Your task to perform on an android device: What's the price of the 1000-Watt EGO Power+ Snow Blower? Image 0: 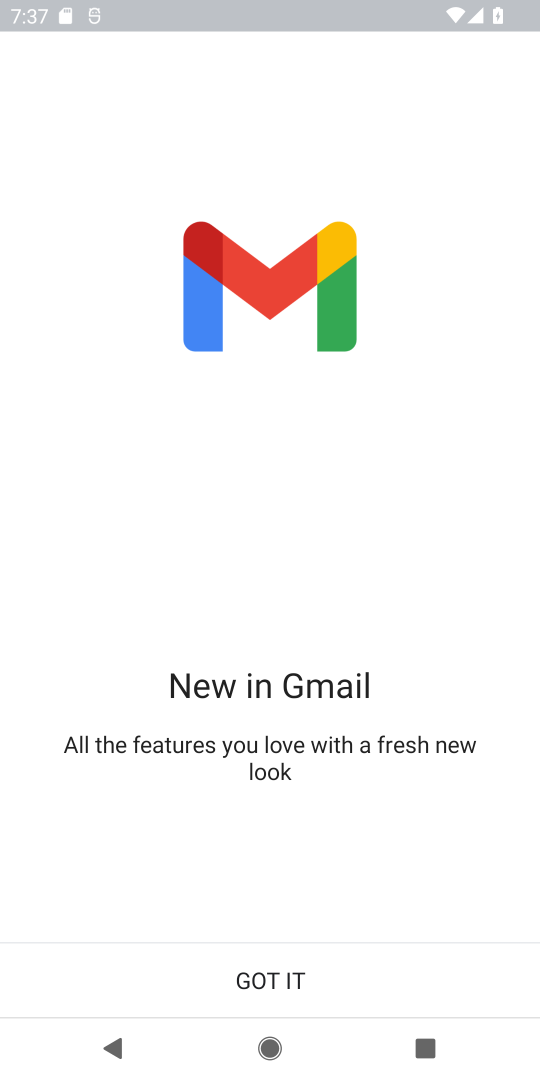
Step 0: press home button
Your task to perform on an android device: What's the price of the 1000-Watt EGO Power+ Snow Blower? Image 1: 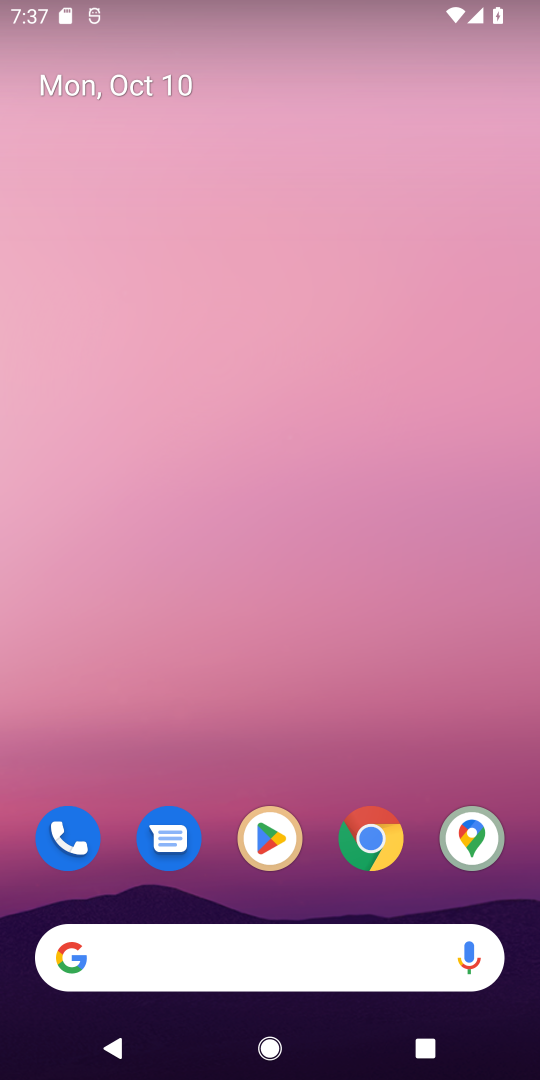
Step 1: click (367, 842)
Your task to perform on an android device: What's the price of the 1000-Watt EGO Power+ Snow Blower? Image 2: 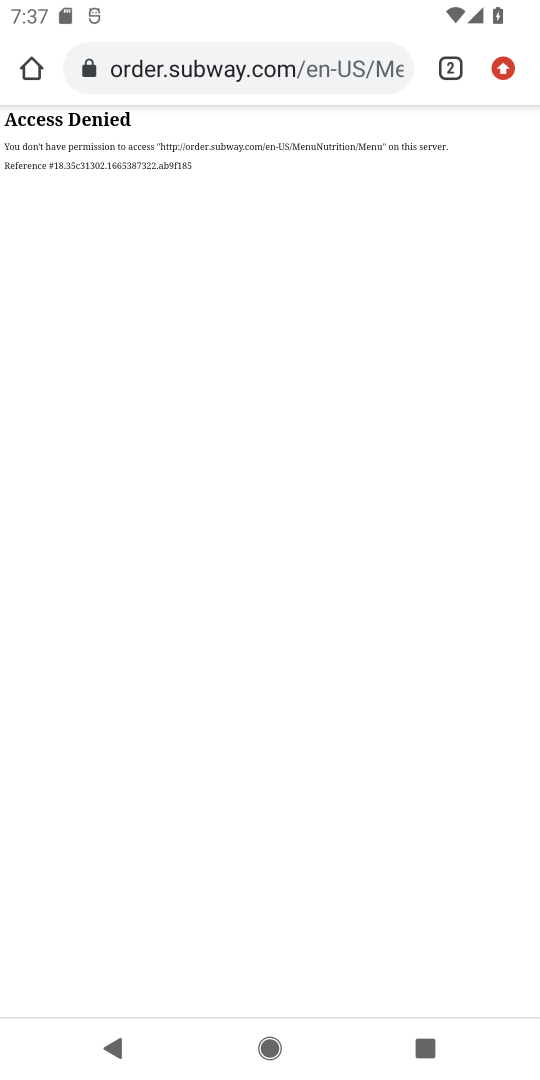
Step 2: click (304, 49)
Your task to perform on an android device: What's the price of the 1000-Watt EGO Power+ Snow Blower? Image 3: 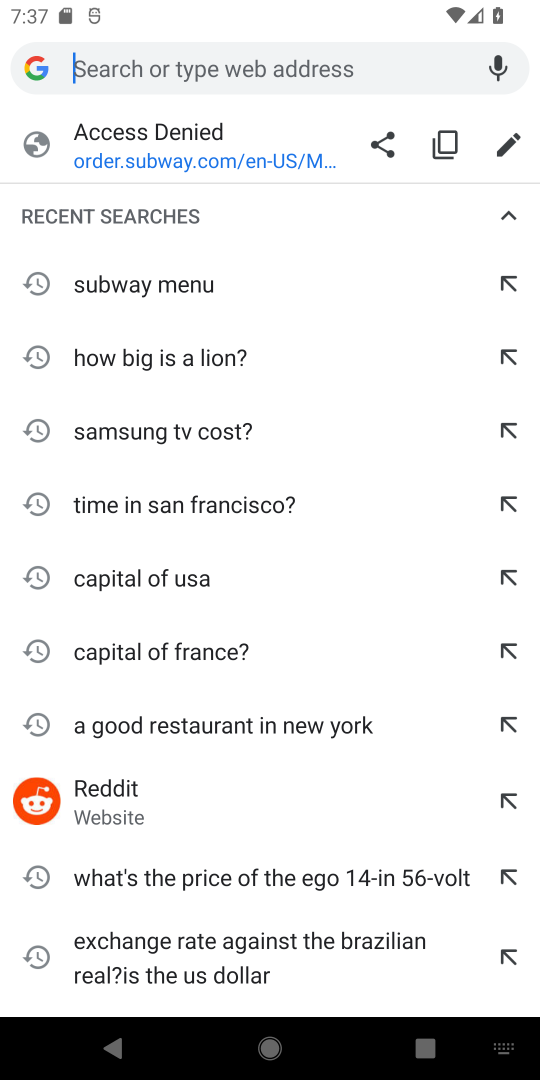
Step 3: type "What's the price of the 1000-Watt EGO Power+ Snow Blower?"
Your task to perform on an android device: What's the price of the 1000-Watt EGO Power+ Snow Blower? Image 4: 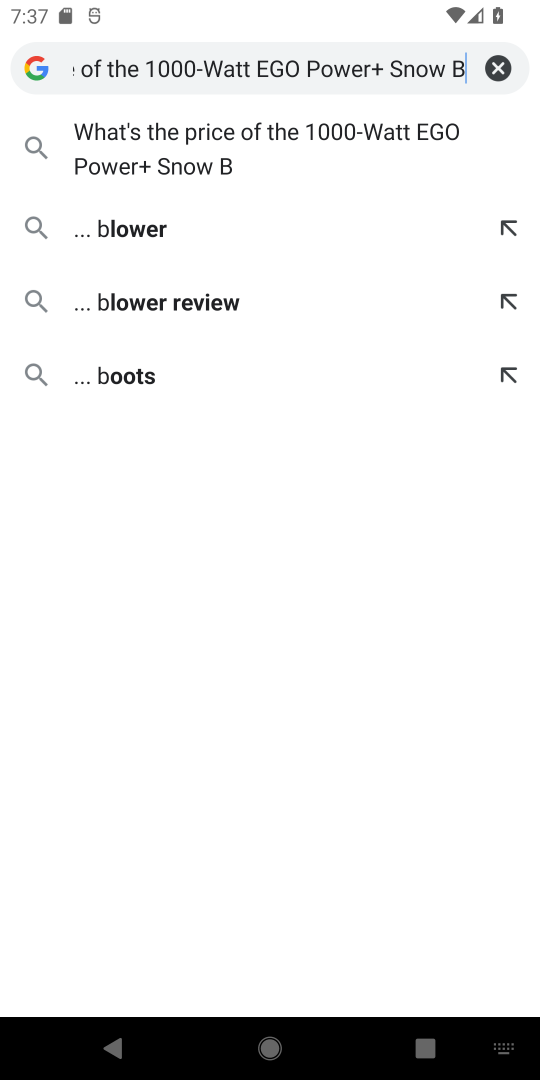
Step 4: click (162, 138)
Your task to perform on an android device: What's the price of the 1000-Watt EGO Power+ Snow Blower? Image 5: 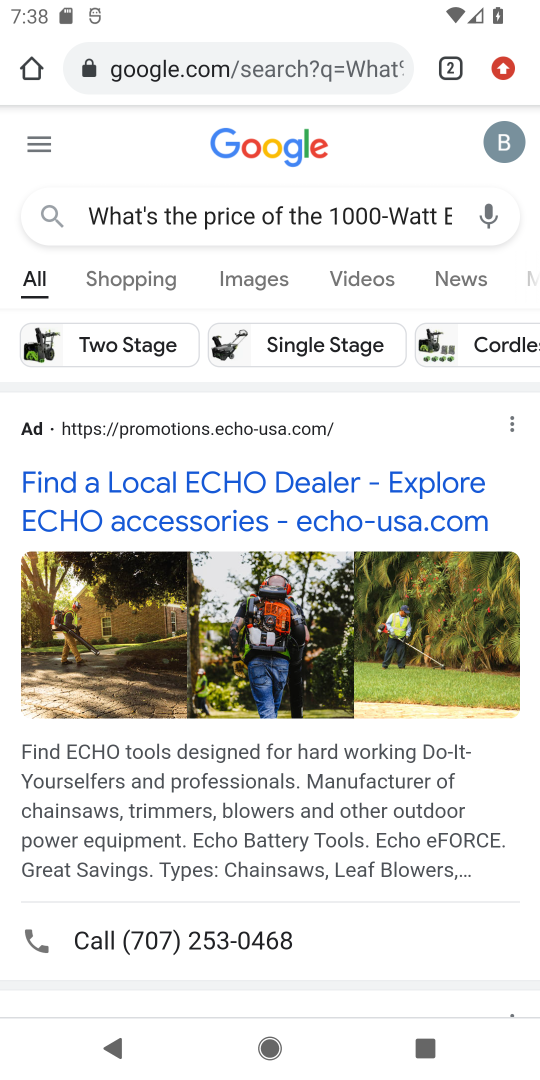
Step 5: drag from (251, 891) to (309, 347)
Your task to perform on an android device: What's the price of the 1000-Watt EGO Power+ Snow Blower? Image 6: 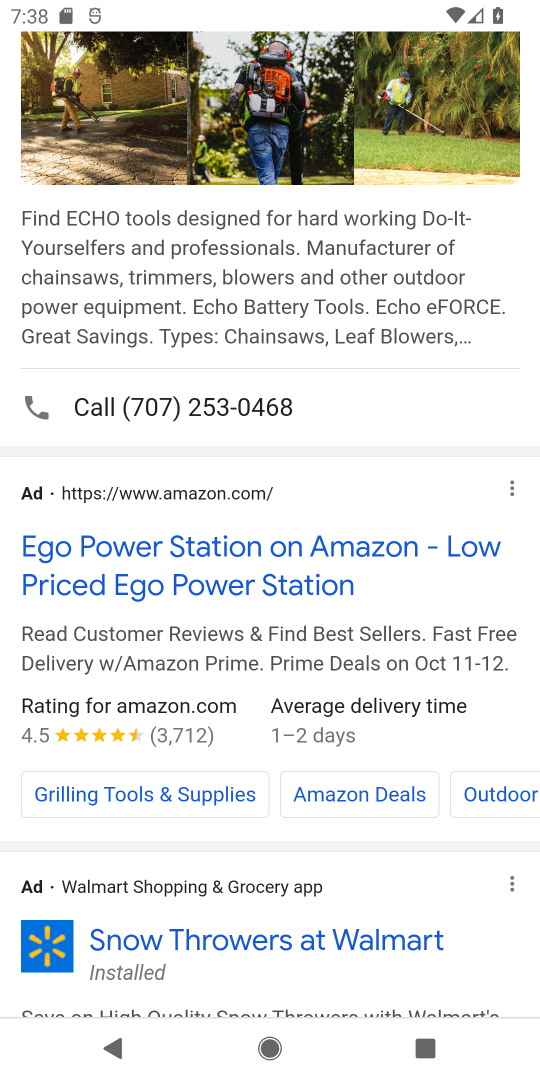
Step 6: click (166, 567)
Your task to perform on an android device: What's the price of the 1000-Watt EGO Power+ Snow Blower? Image 7: 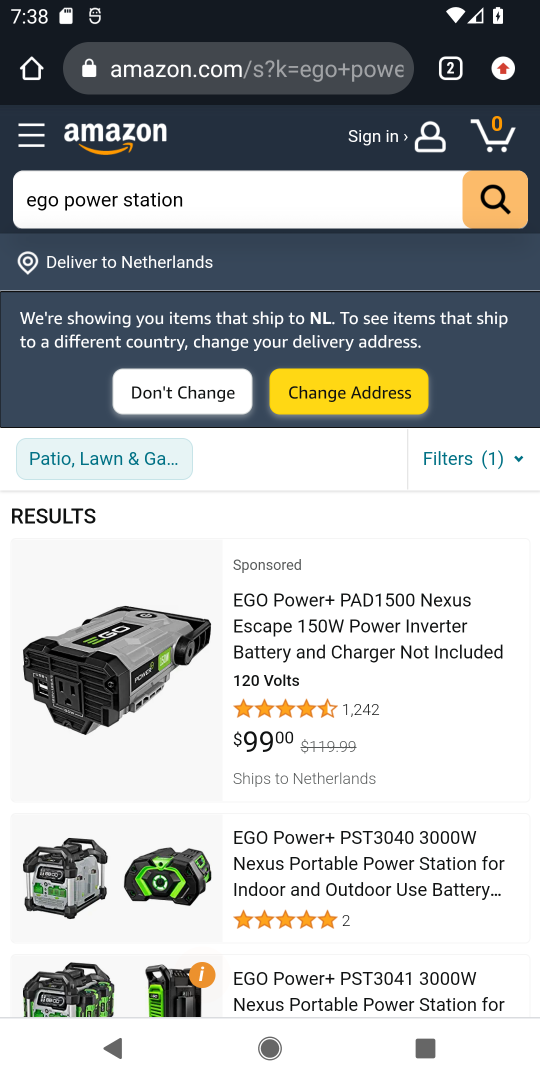
Step 7: drag from (322, 814) to (349, 500)
Your task to perform on an android device: What's the price of the 1000-Watt EGO Power+ Snow Blower? Image 8: 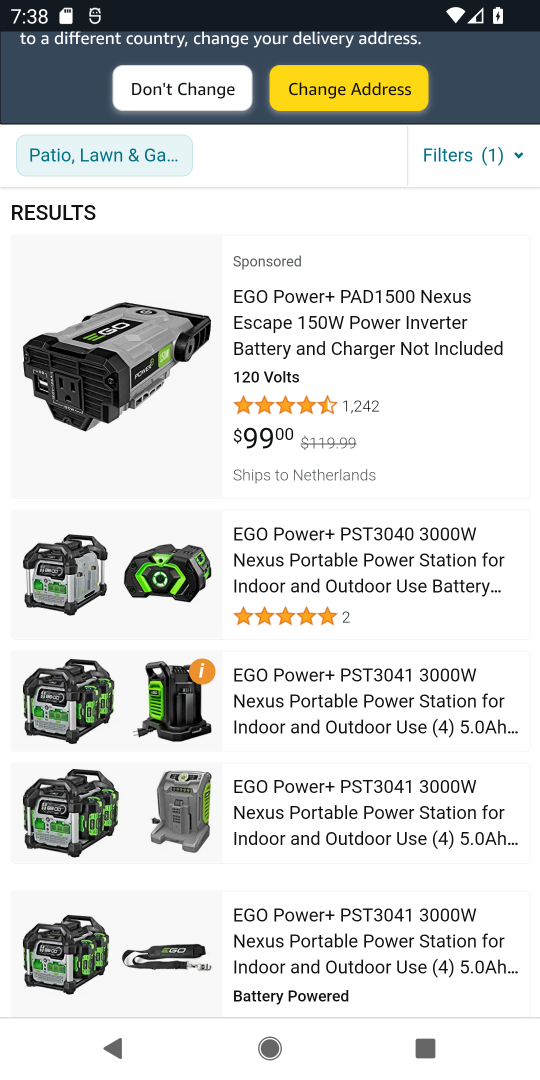
Step 8: drag from (357, 879) to (370, 472)
Your task to perform on an android device: What's the price of the 1000-Watt EGO Power+ Snow Blower? Image 9: 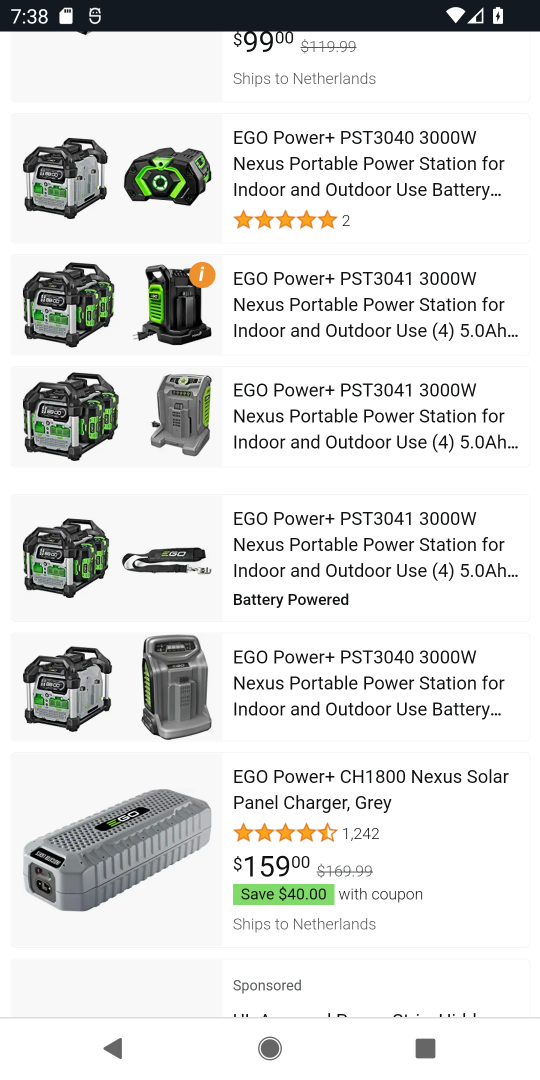
Step 9: drag from (330, 742) to (333, 399)
Your task to perform on an android device: What's the price of the 1000-Watt EGO Power+ Snow Blower? Image 10: 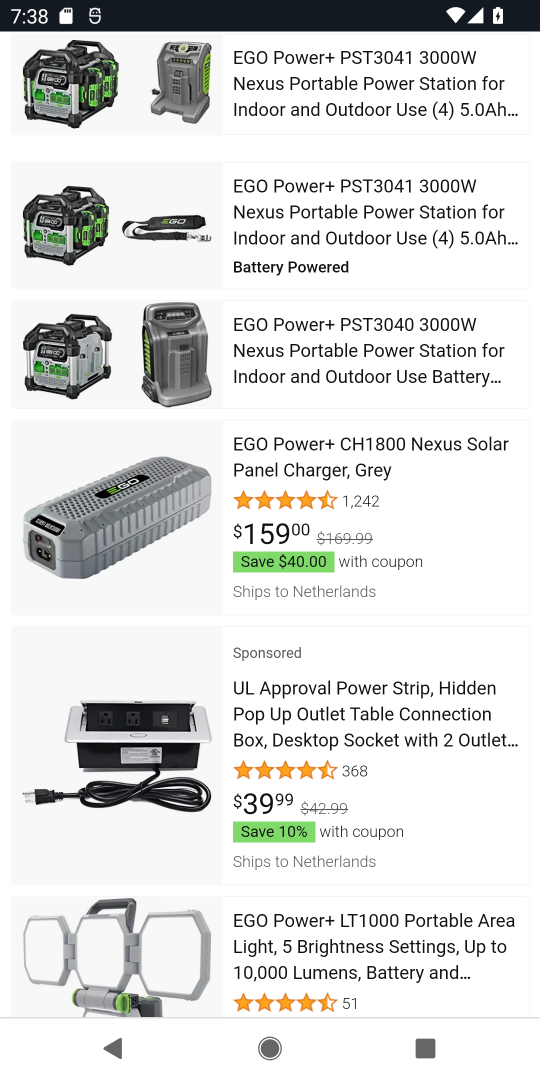
Step 10: drag from (374, 566) to (369, 212)
Your task to perform on an android device: What's the price of the 1000-Watt EGO Power+ Snow Blower? Image 11: 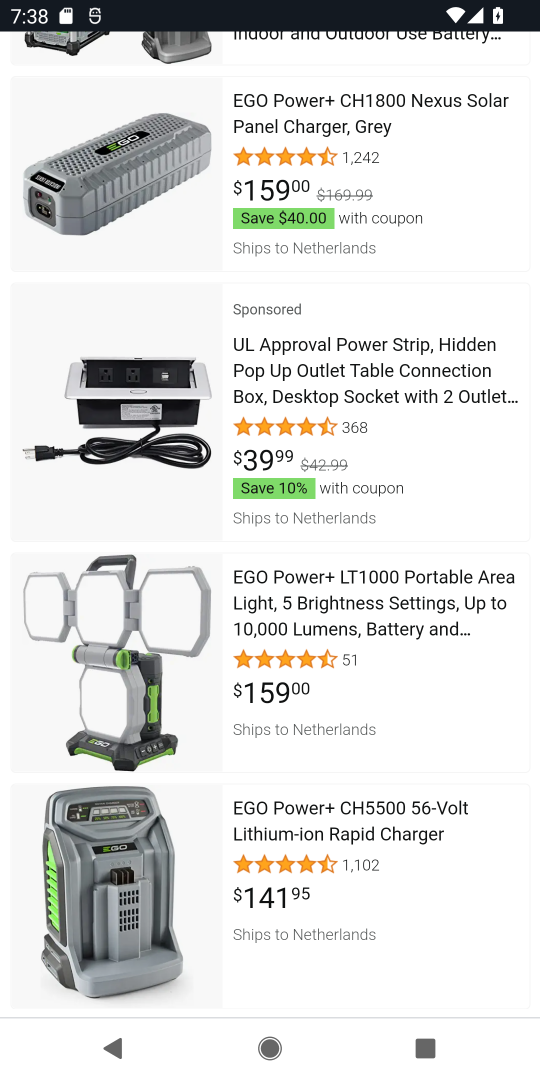
Step 11: drag from (414, 761) to (402, 312)
Your task to perform on an android device: What's the price of the 1000-Watt EGO Power+ Snow Blower? Image 12: 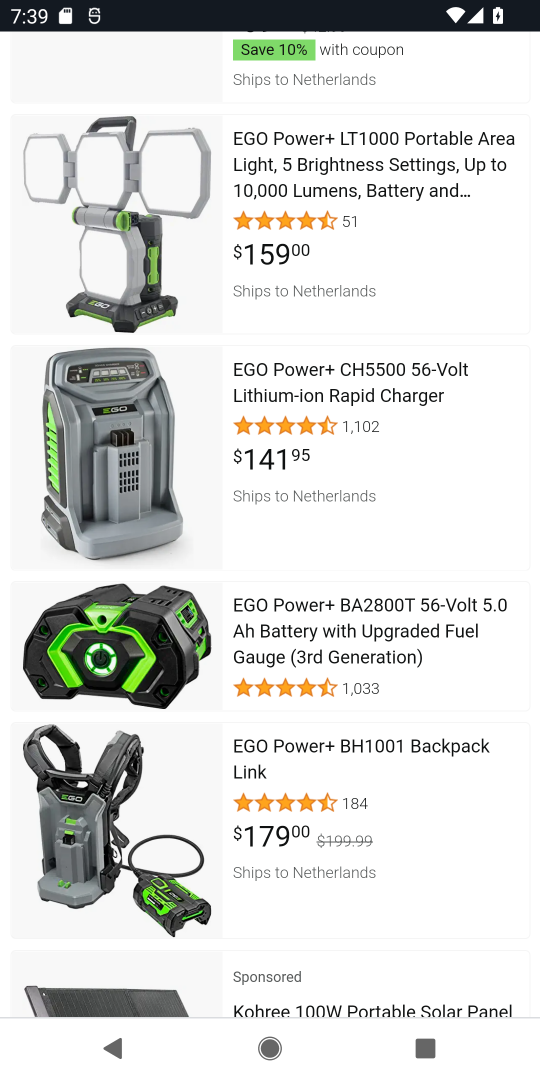
Step 12: click (435, 872)
Your task to perform on an android device: What's the price of the 1000-Watt EGO Power+ Snow Blower? Image 13: 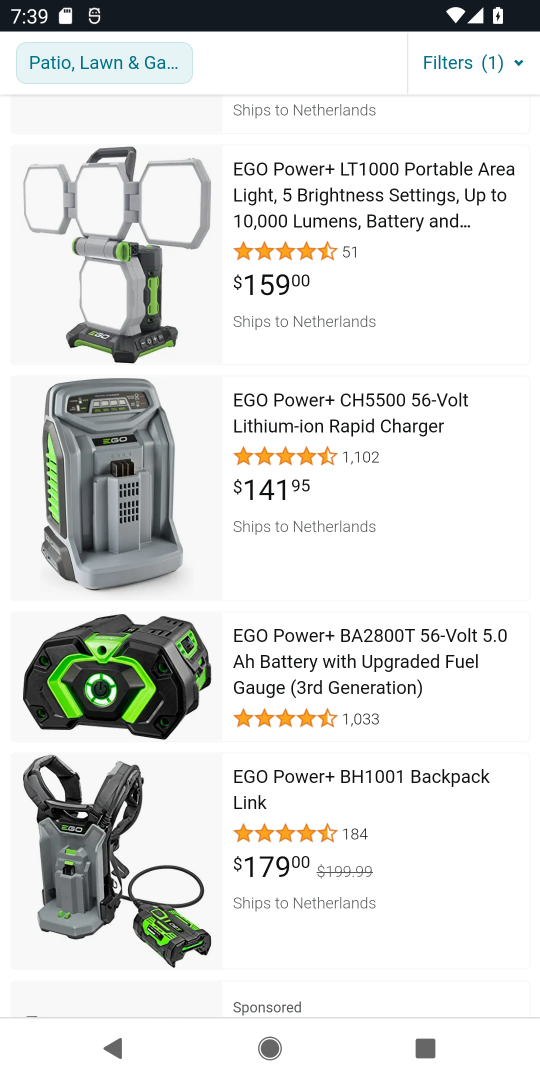
Step 13: task complete